Your task to perform on an android device: Find coffee shops on Maps Image 0: 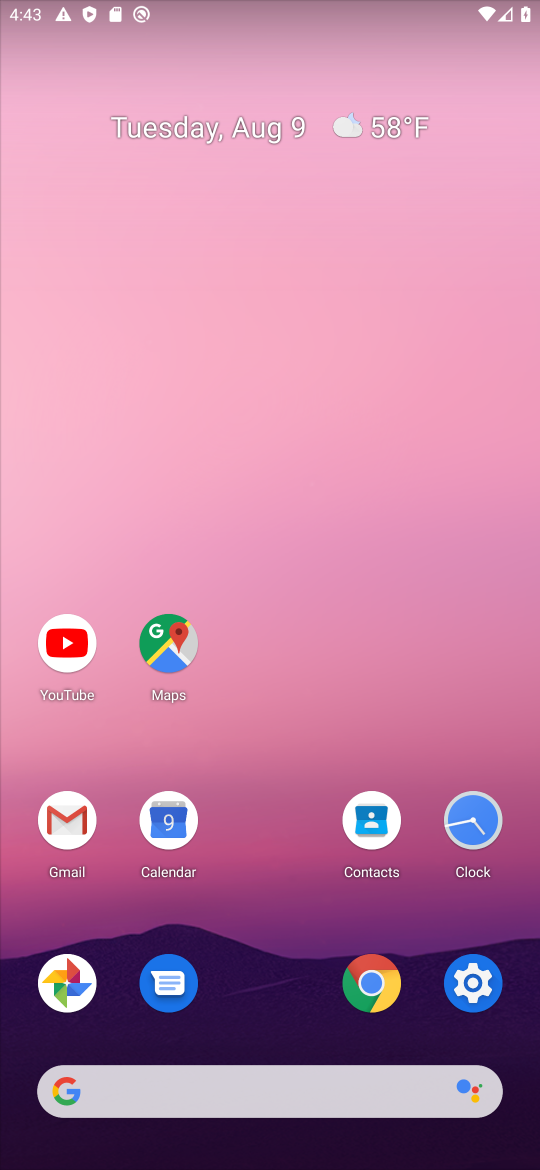
Step 0: click (169, 649)
Your task to perform on an android device: Find coffee shops on Maps Image 1: 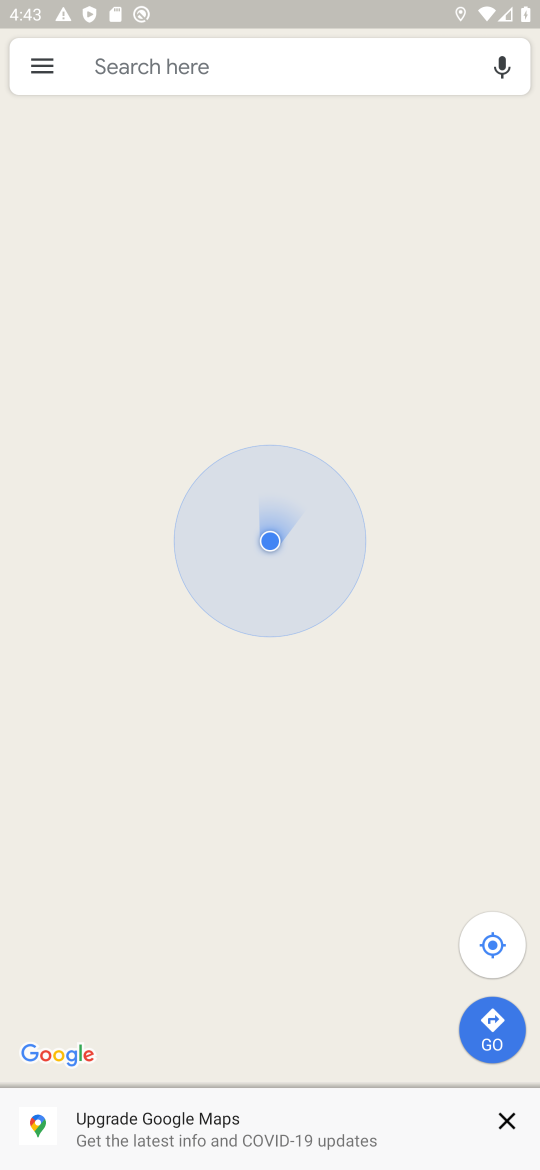
Step 1: click (154, 52)
Your task to perform on an android device: Find coffee shops on Maps Image 2: 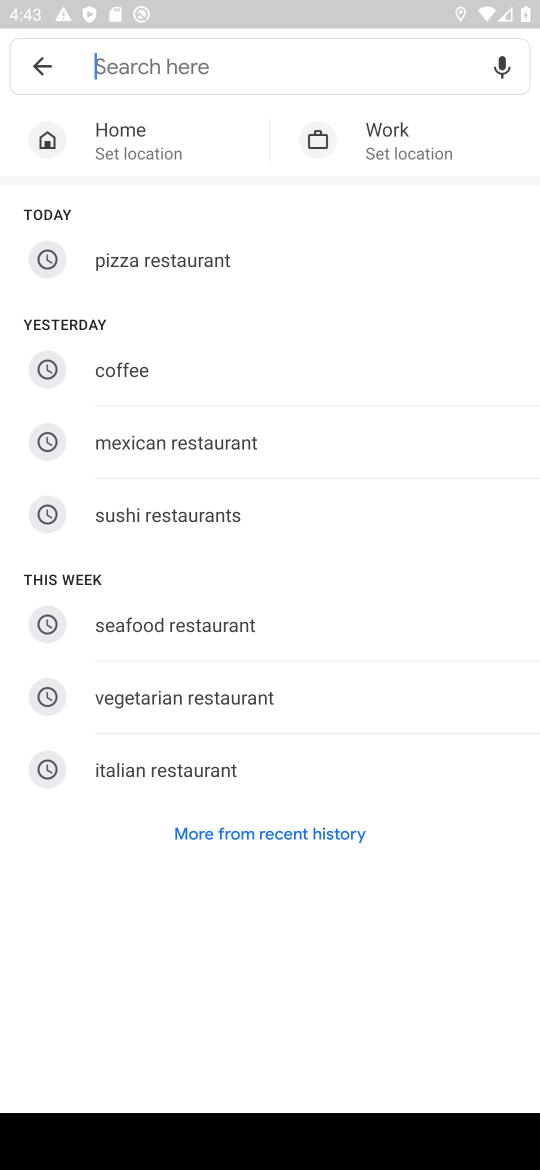
Step 2: click (129, 368)
Your task to perform on an android device: Find coffee shops on Maps Image 3: 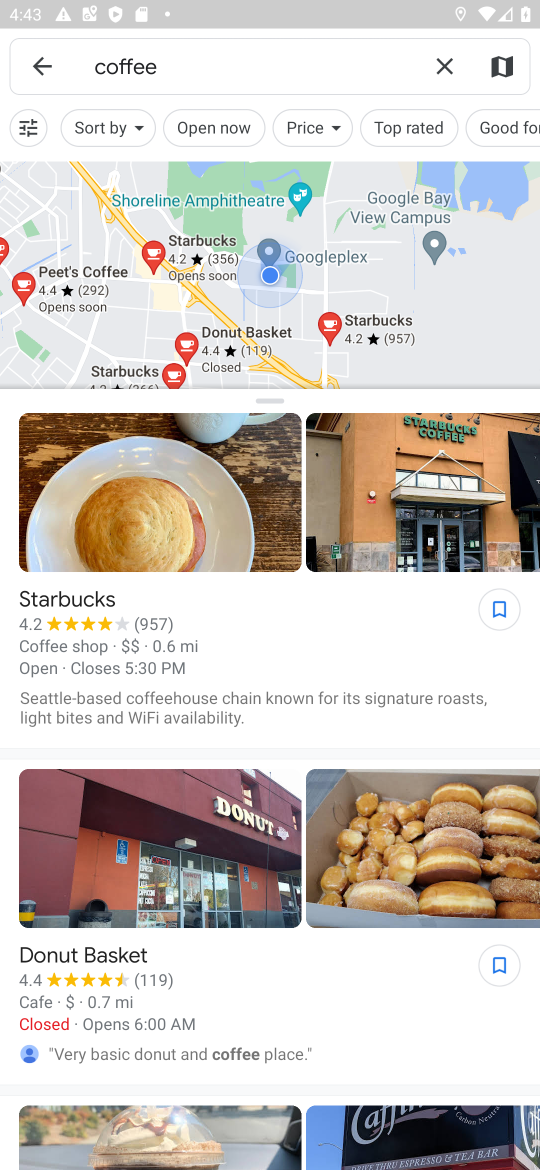
Step 3: task complete